Your task to perform on an android device: delete the emails in spam in the gmail app Image 0: 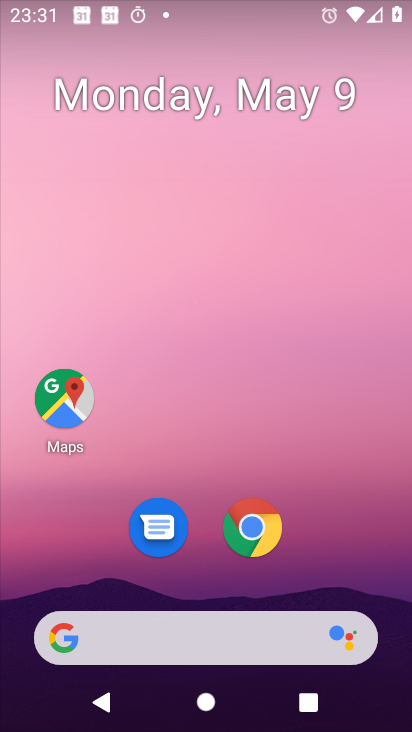
Step 0: drag from (205, 573) to (184, 124)
Your task to perform on an android device: delete the emails in spam in the gmail app Image 1: 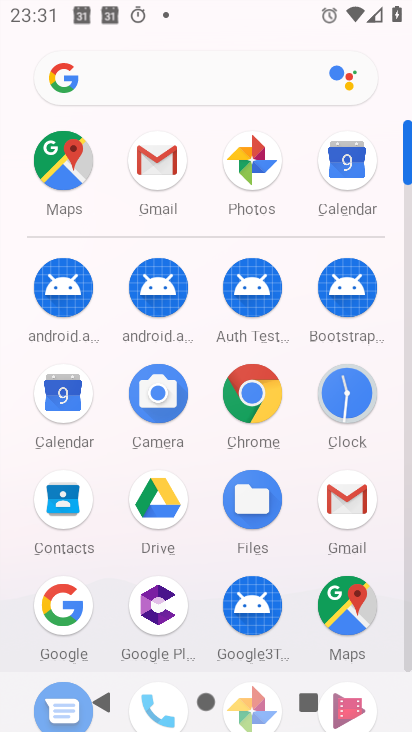
Step 1: click (156, 154)
Your task to perform on an android device: delete the emails in spam in the gmail app Image 2: 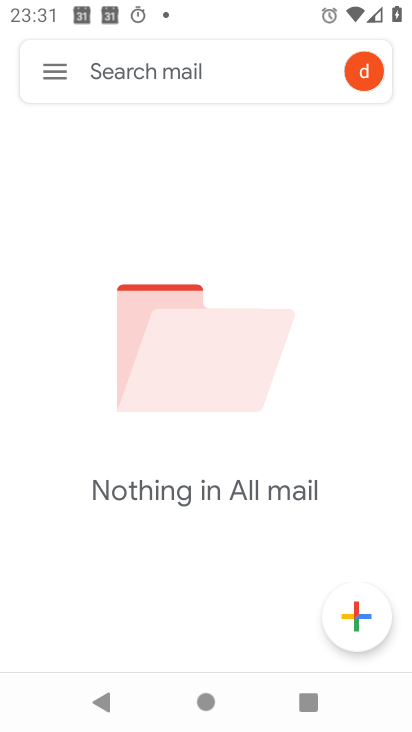
Step 2: click (42, 73)
Your task to perform on an android device: delete the emails in spam in the gmail app Image 3: 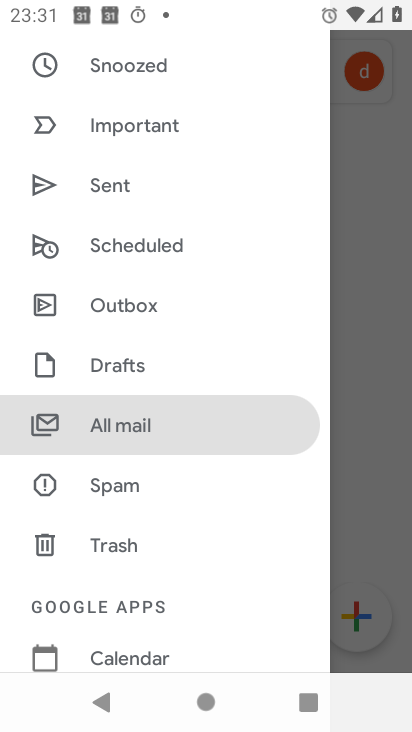
Step 3: click (123, 494)
Your task to perform on an android device: delete the emails in spam in the gmail app Image 4: 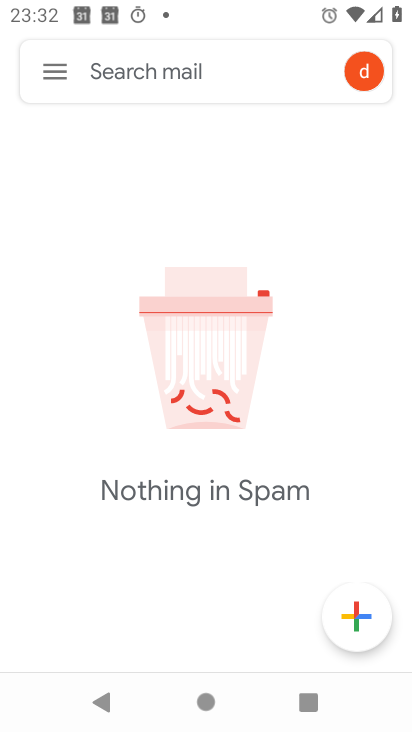
Step 4: task complete